Your task to perform on an android device: Set the phone to "Do not disturb". Image 0: 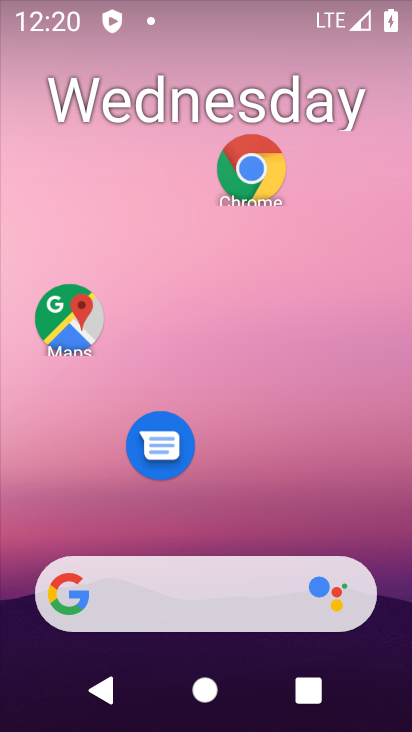
Step 0: drag from (233, 362) to (263, 12)
Your task to perform on an android device: Set the phone to "Do not disturb". Image 1: 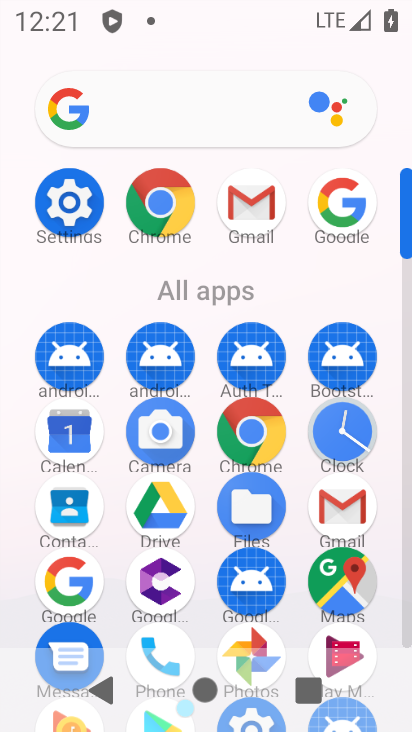
Step 1: drag from (137, 568) to (178, 281)
Your task to perform on an android device: Set the phone to "Do not disturb". Image 2: 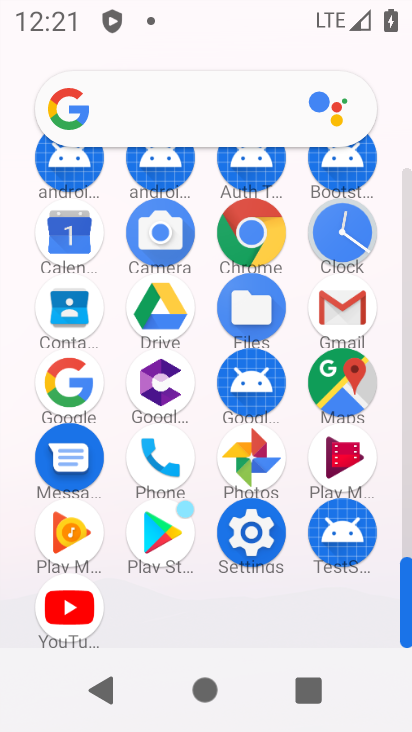
Step 2: click (253, 539)
Your task to perform on an android device: Set the phone to "Do not disturb". Image 3: 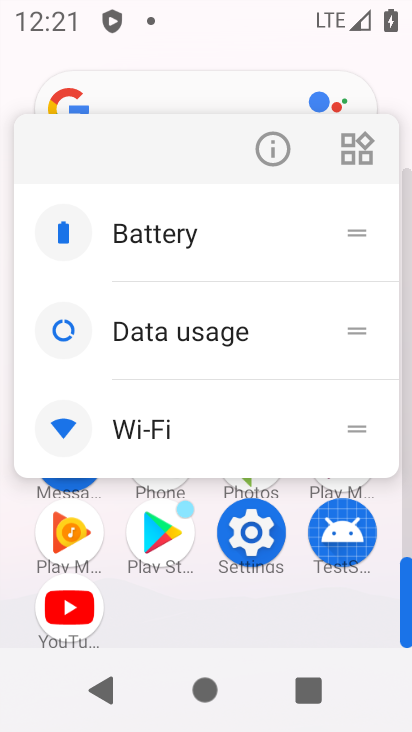
Step 3: click (234, 550)
Your task to perform on an android device: Set the phone to "Do not disturb". Image 4: 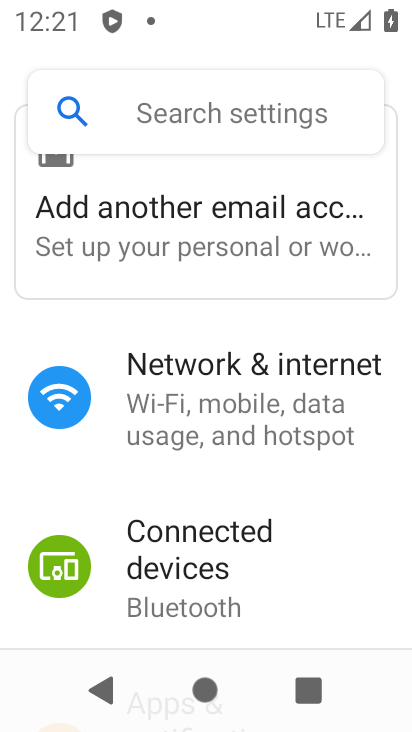
Step 4: drag from (214, 597) to (318, 279)
Your task to perform on an android device: Set the phone to "Do not disturb". Image 5: 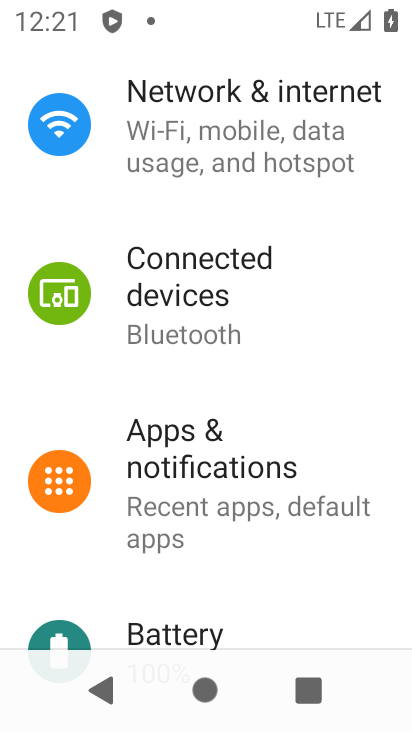
Step 5: drag from (229, 490) to (296, 213)
Your task to perform on an android device: Set the phone to "Do not disturb". Image 6: 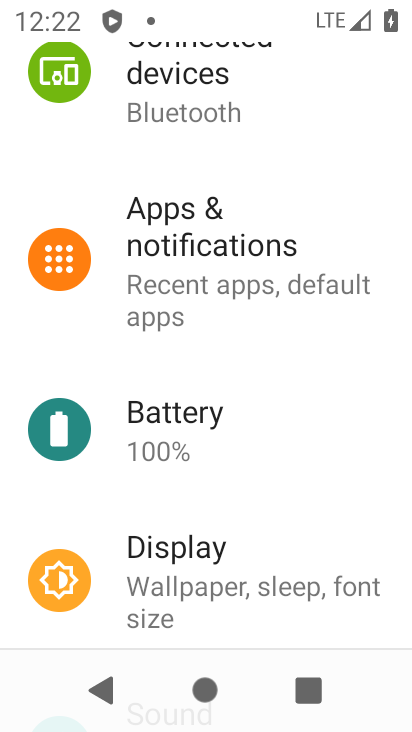
Step 6: drag from (173, 545) to (242, 273)
Your task to perform on an android device: Set the phone to "Do not disturb". Image 7: 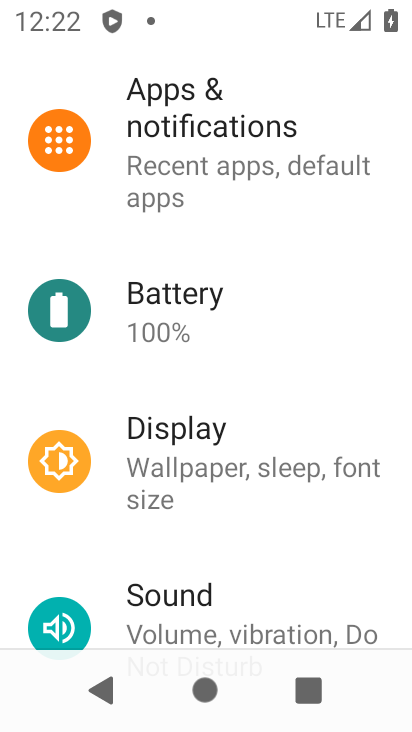
Step 7: click (169, 609)
Your task to perform on an android device: Set the phone to "Do not disturb". Image 8: 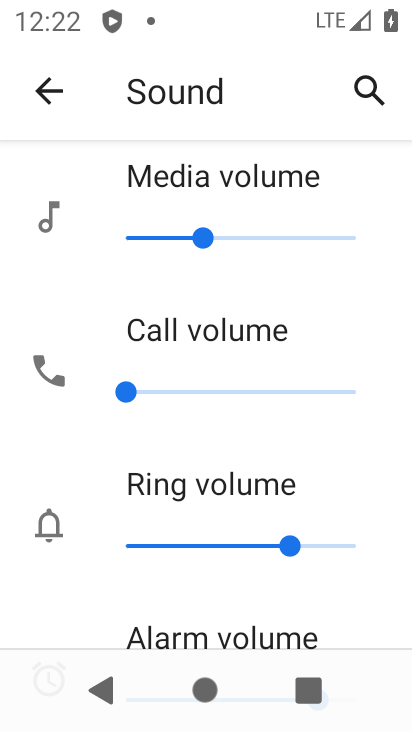
Step 8: drag from (217, 519) to (310, 140)
Your task to perform on an android device: Set the phone to "Do not disturb". Image 9: 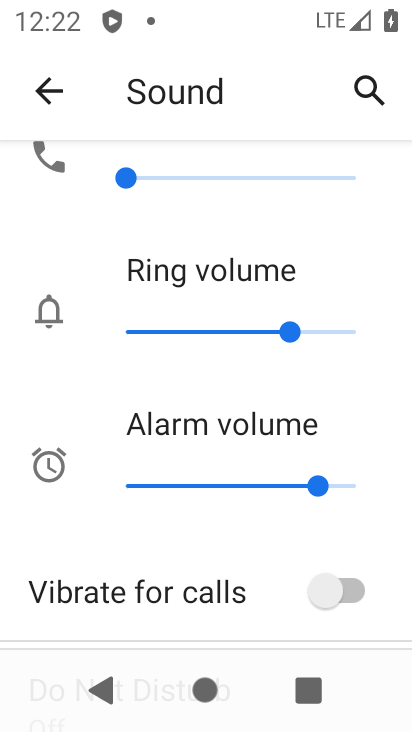
Step 9: drag from (227, 511) to (282, 108)
Your task to perform on an android device: Set the phone to "Do not disturb". Image 10: 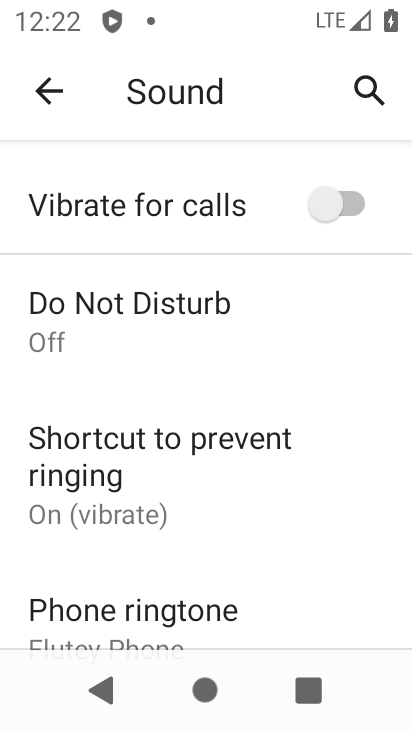
Step 10: click (152, 326)
Your task to perform on an android device: Set the phone to "Do not disturb". Image 11: 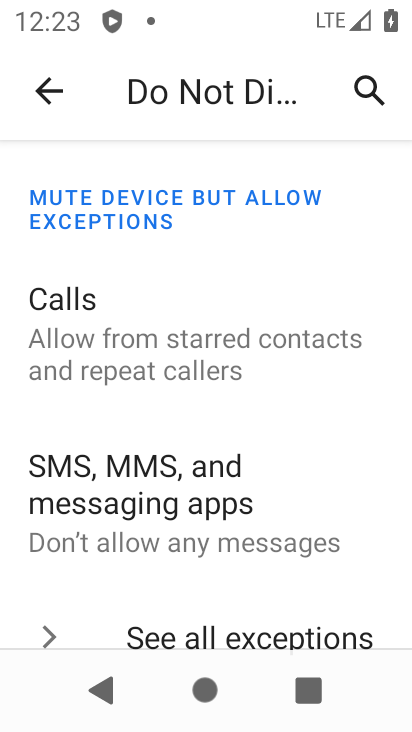
Step 11: drag from (186, 547) to (226, 304)
Your task to perform on an android device: Set the phone to "Do not disturb". Image 12: 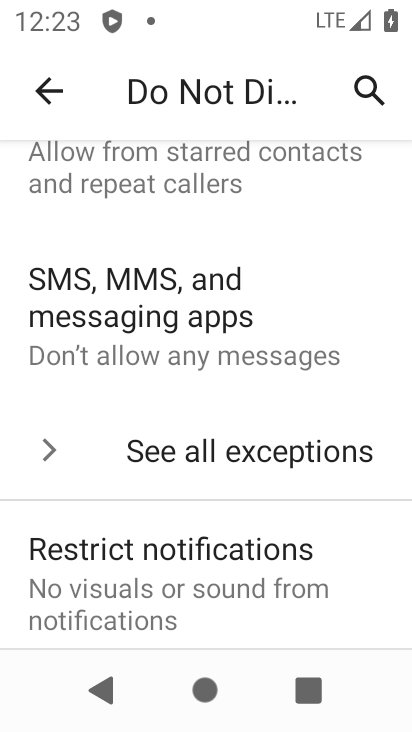
Step 12: drag from (181, 522) to (222, 193)
Your task to perform on an android device: Set the phone to "Do not disturb". Image 13: 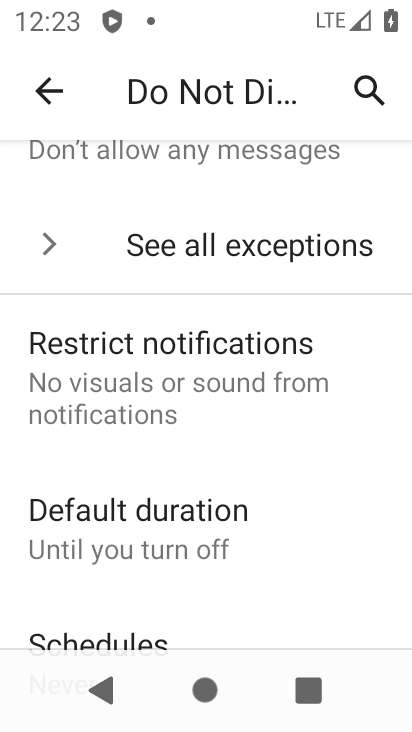
Step 13: drag from (166, 554) to (262, 150)
Your task to perform on an android device: Set the phone to "Do not disturb". Image 14: 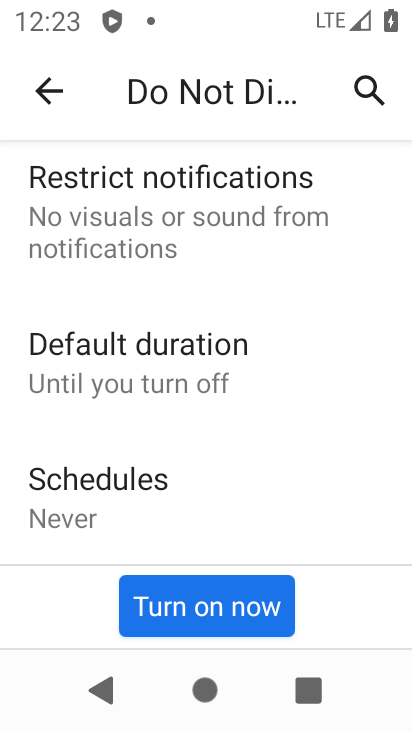
Step 14: click (239, 582)
Your task to perform on an android device: Set the phone to "Do not disturb". Image 15: 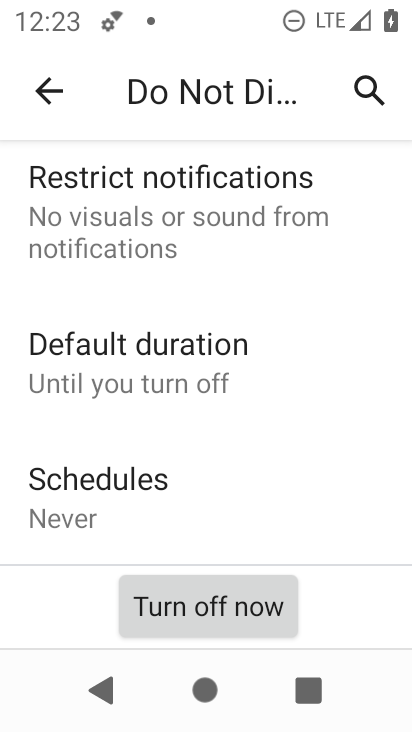
Step 15: task complete